Your task to perform on an android device: Open my contact list Image 0: 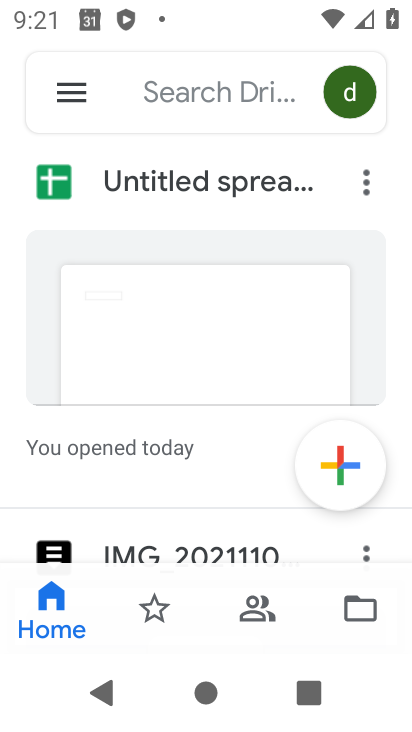
Step 0: press home button
Your task to perform on an android device: Open my contact list Image 1: 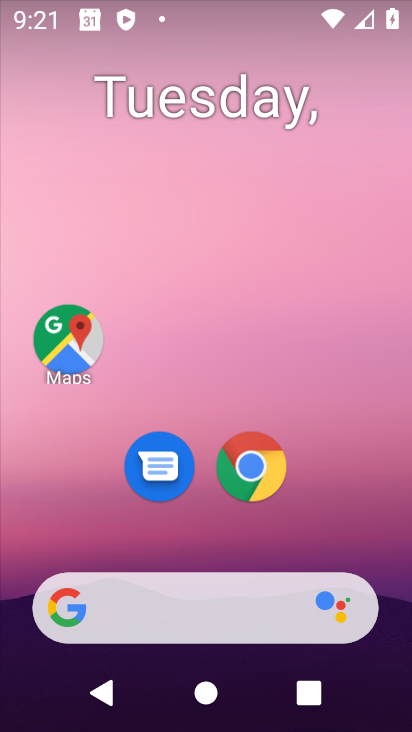
Step 1: drag from (363, 501) to (366, 97)
Your task to perform on an android device: Open my contact list Image 2: 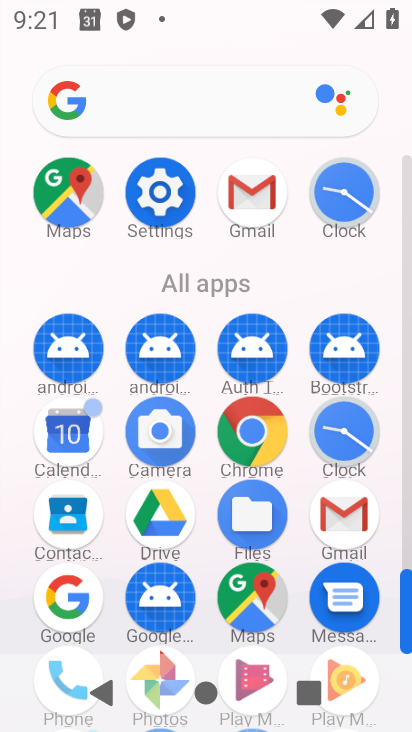
Step 2: click (65, 510)
Your task to perform on an android device: Open my contact list Image 3: 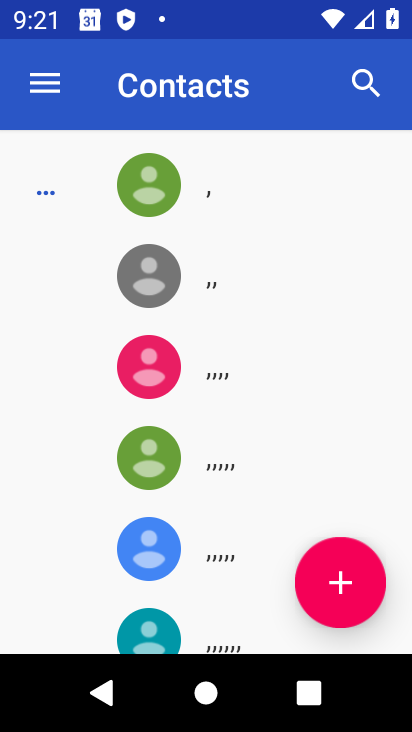
Step 3: task complete